Your task to perform on an android device: When is my next meeting? Image 0: 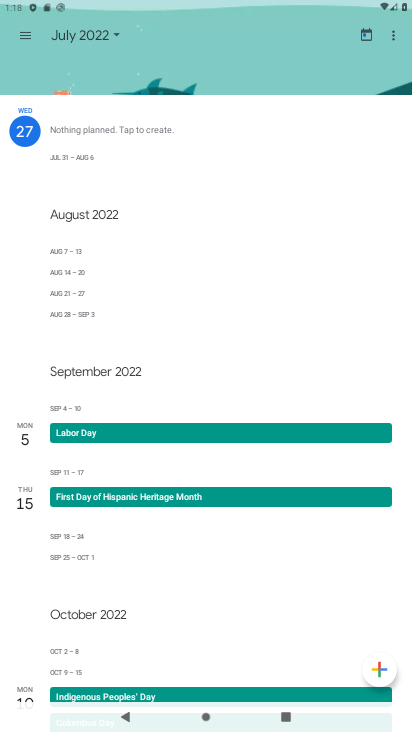
Step 0: task complete